Your task to perform on an android device: turn pop-ups off in chrome Image 0: 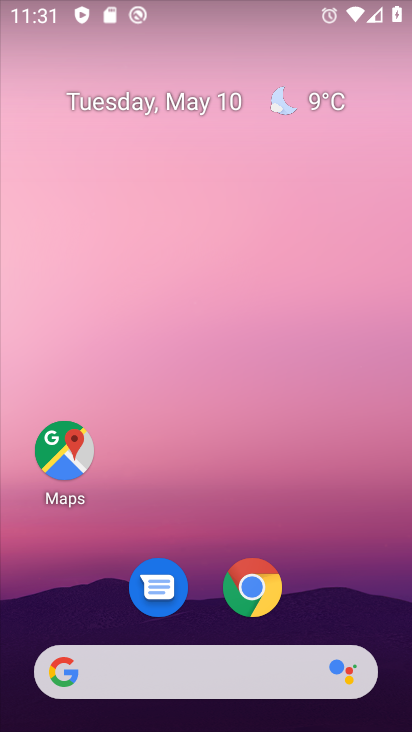
Step 0: click (258, 586)
Your task to perform on an android device: turn pop-ups off in chrome Image 1: 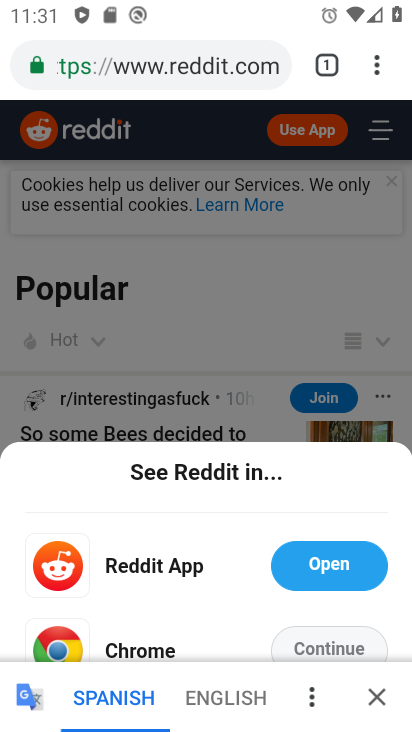
Step 1: drag from (378, 62) to (194, 636)
Your task to perform on an android device: turn pop-ups off in chrome Image 2: 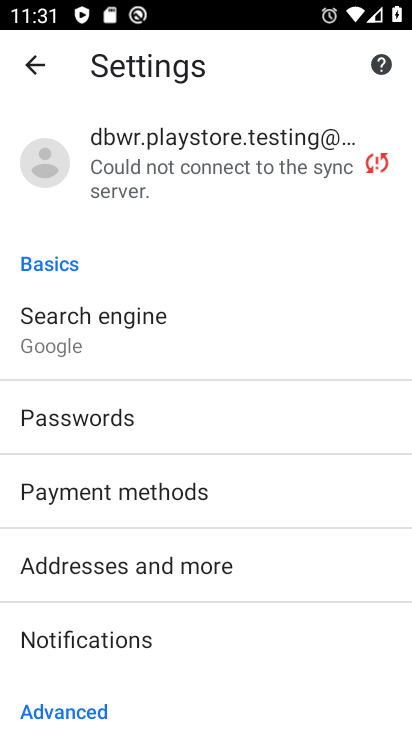
Step 2: drag from (196, 632) to (203, 276)
Your task to perform on an android device: turn pop-ups off in chrome Image 3: 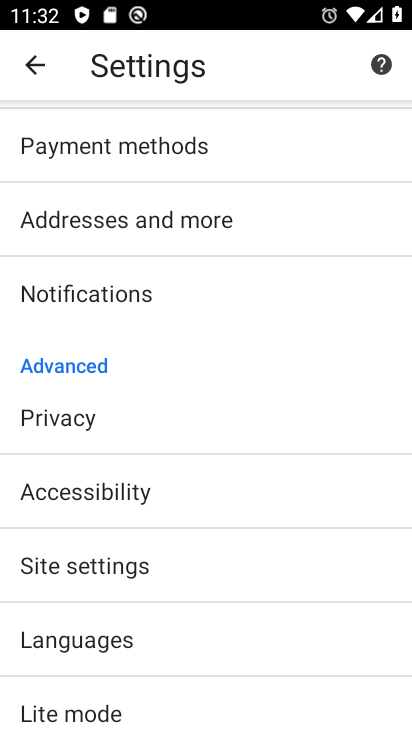
Step 3: click (125, 562)
Your task to perform on an android device: turn pop-ups off in chrome Image 4: 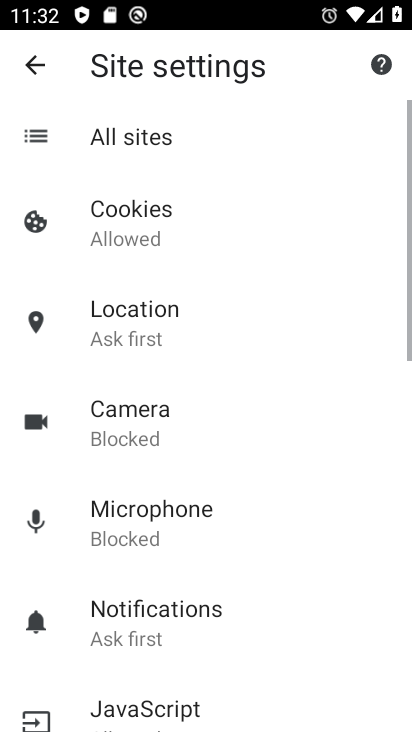
Step 4: drag from (208, 579) to (216, 307)
Your task to perform on an android device: turn pop-ups off in chrome Image 5: 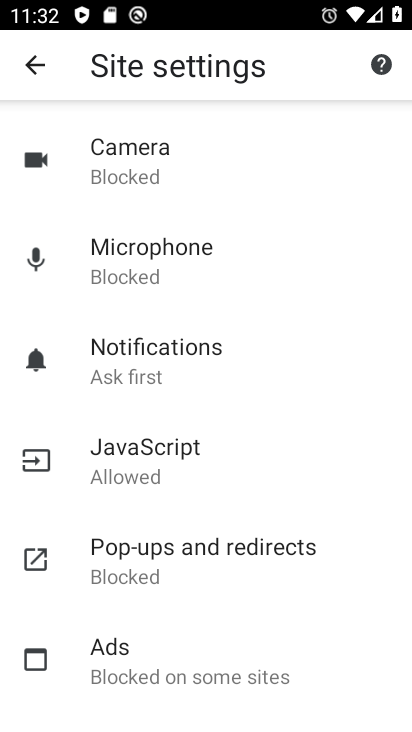
Step 5: click (124, 560)
Your task to perform on an android device: turn pop-ups off in chrome Image 6: 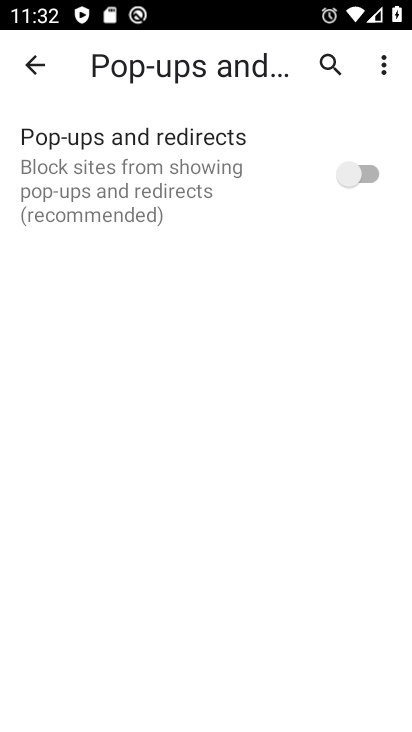
Step 6: task complete